Your task to perform on an android device: Open Maps and search for coffee Image 0: 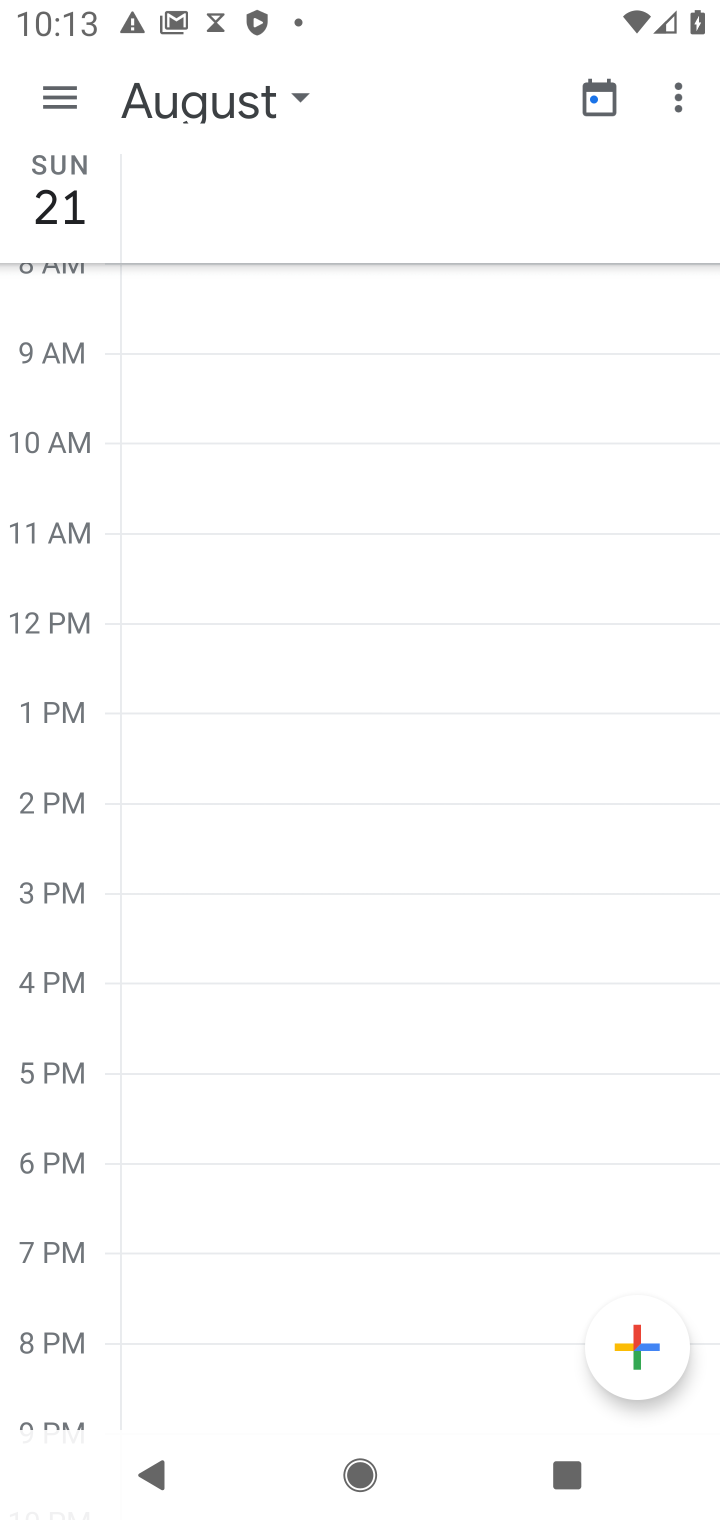
Step 0: press home button
Your task to perform on an android device: Open Maps and search for coffee Image 1: 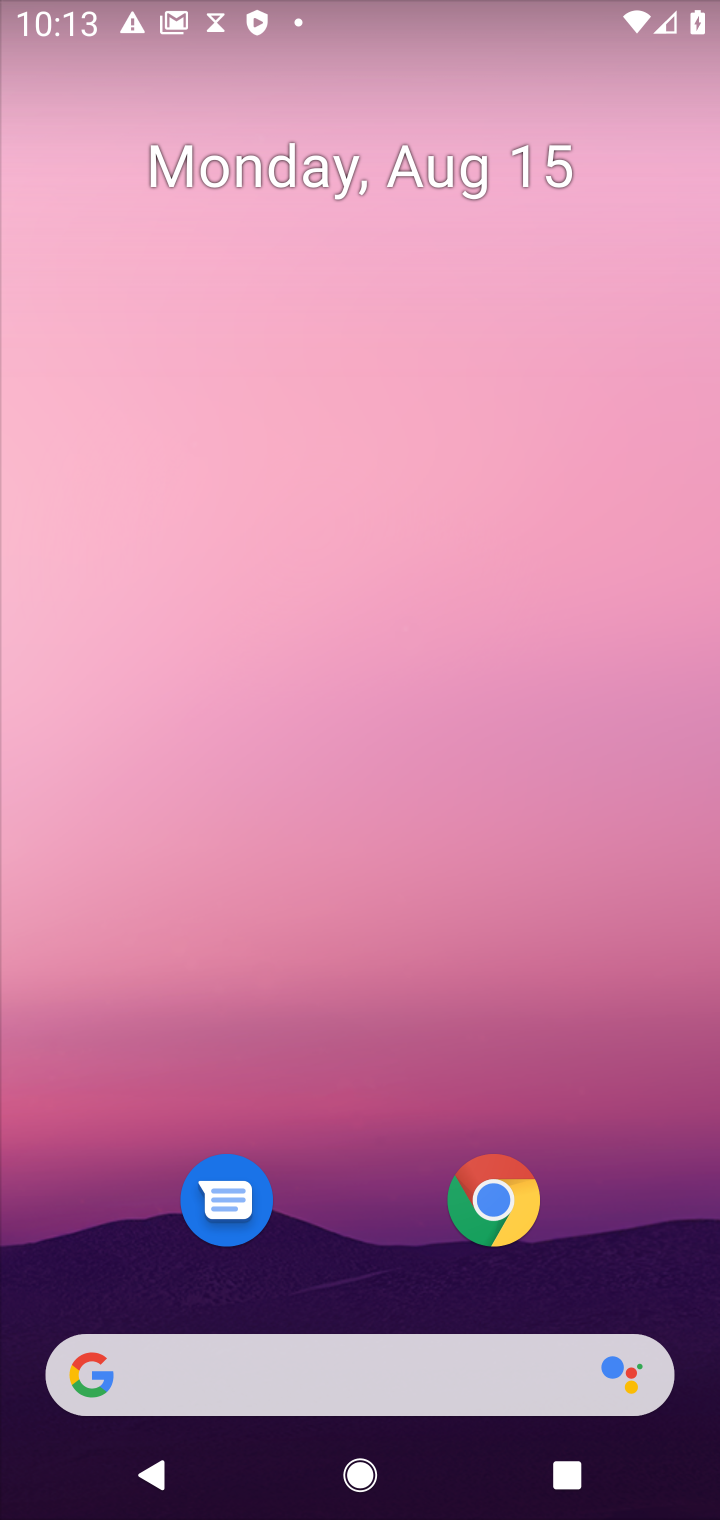
Step 1: drag from (379, 1234) to (385, 388)
Your task to perform on an android device: Open Maps and search for coffee Image 2: 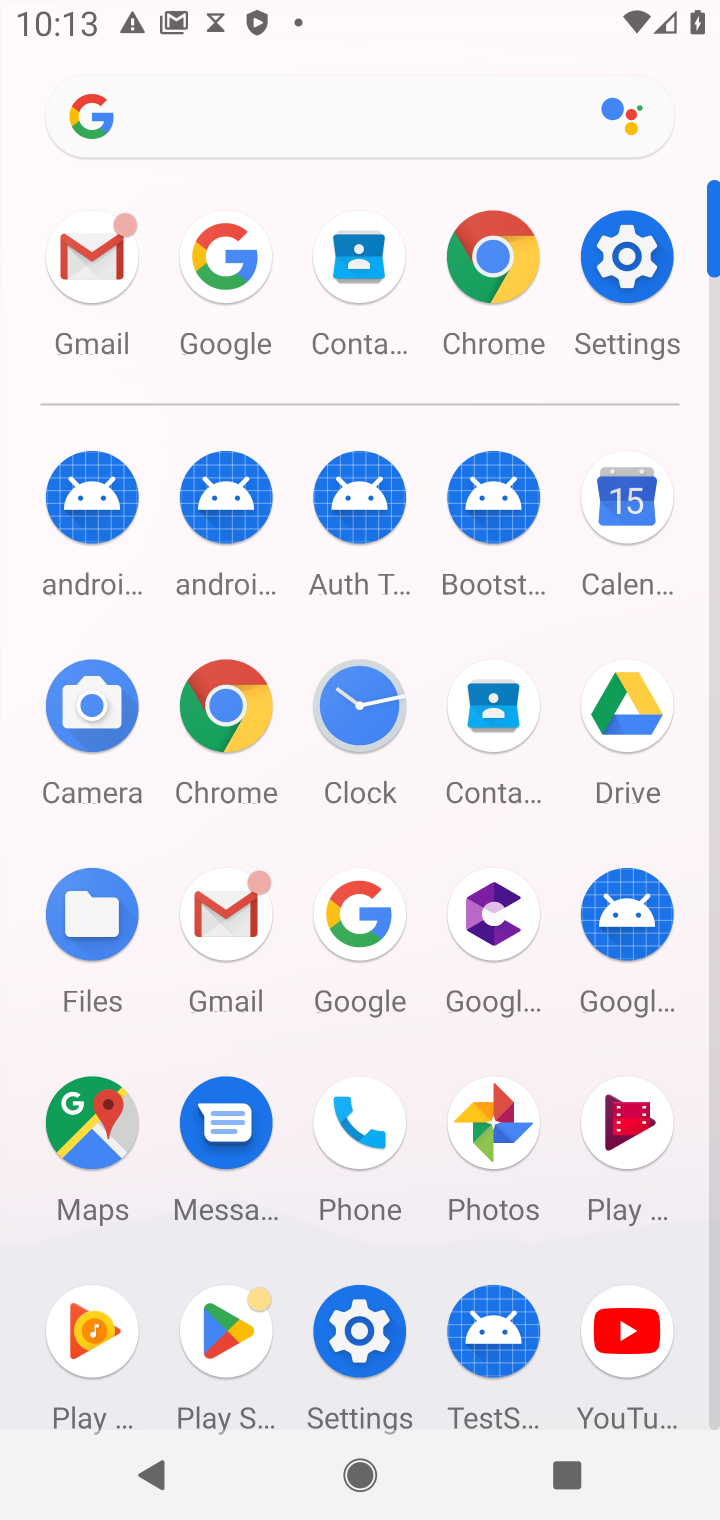
Step 2: click (104, 1123)
Your task to perform on an android device: Open Maps and search for coffee Image 3: 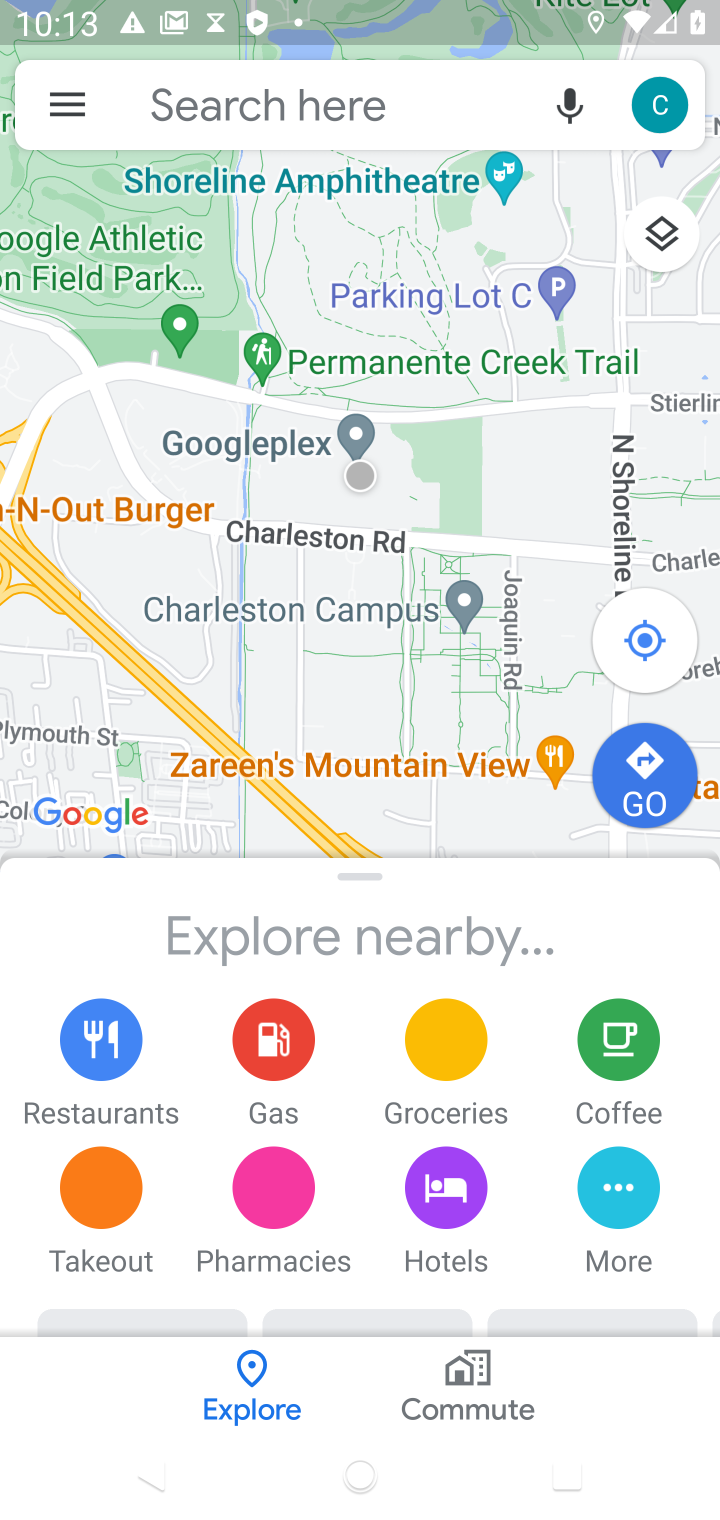
Step 3: click (252, 104)
Your task to perform on an android device: Open Maps and search for coffee Image 4: 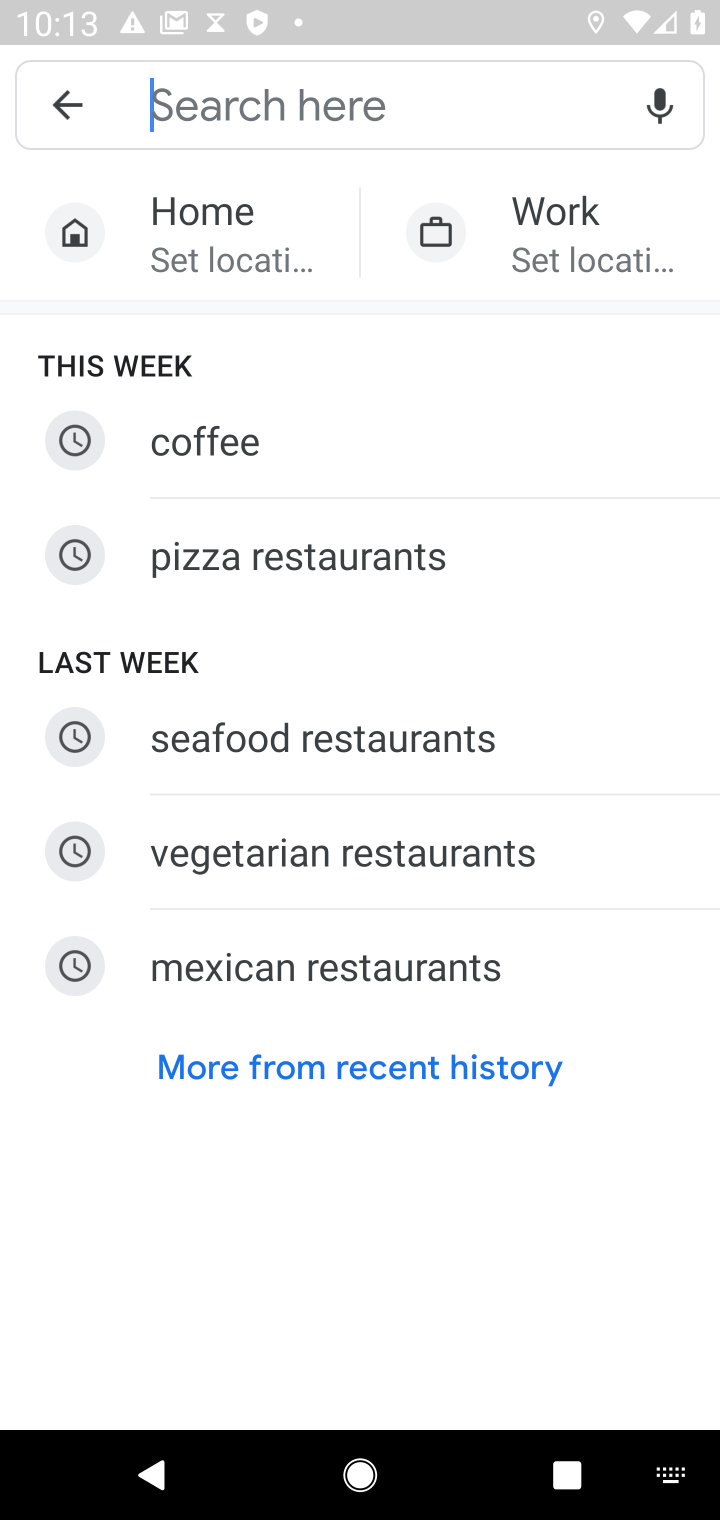
Step 4: click (187, 443)
Your task to perform on an android device: Open Maps and search for coffee Image 5: 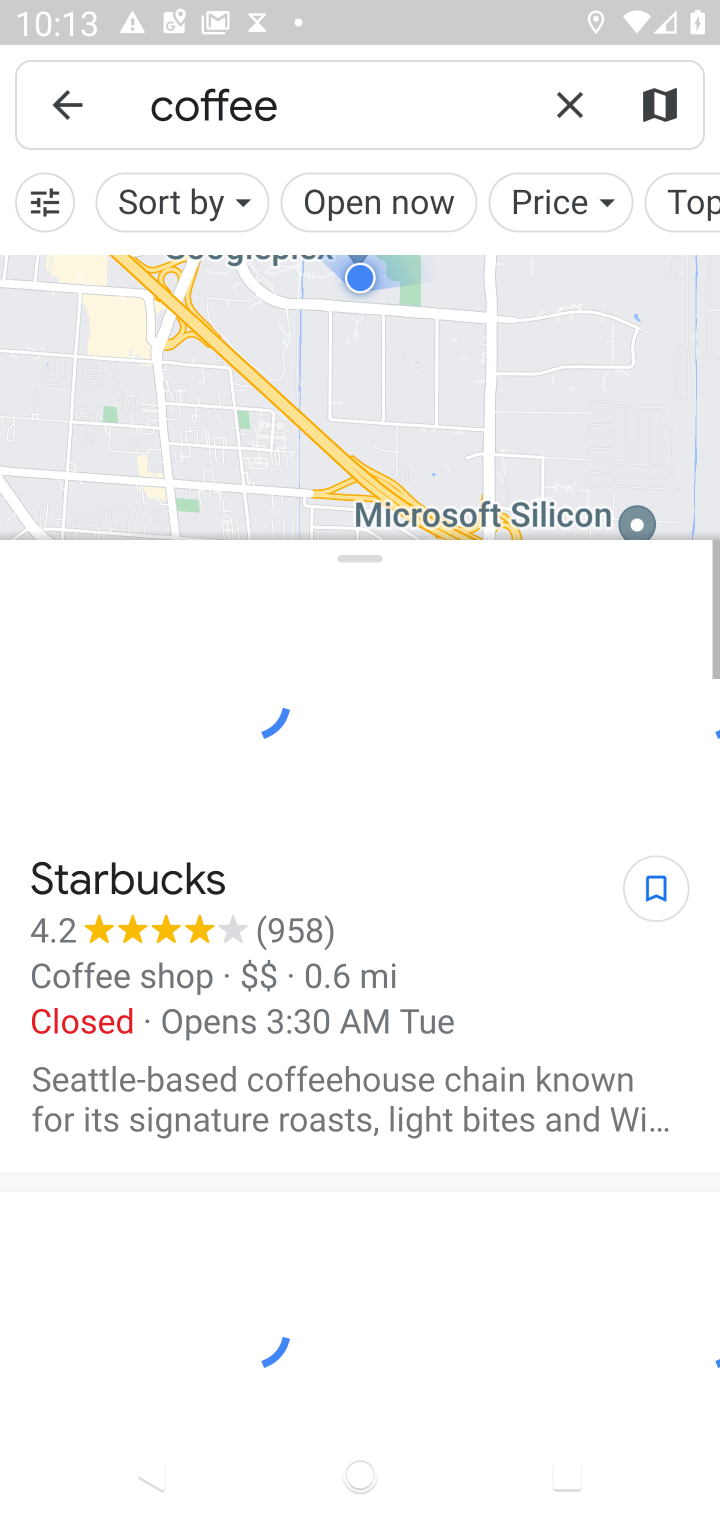
Step 5: task complete